Your task to perform on an android device: uninstall "ColorNote Notepad Notes" Image 0: 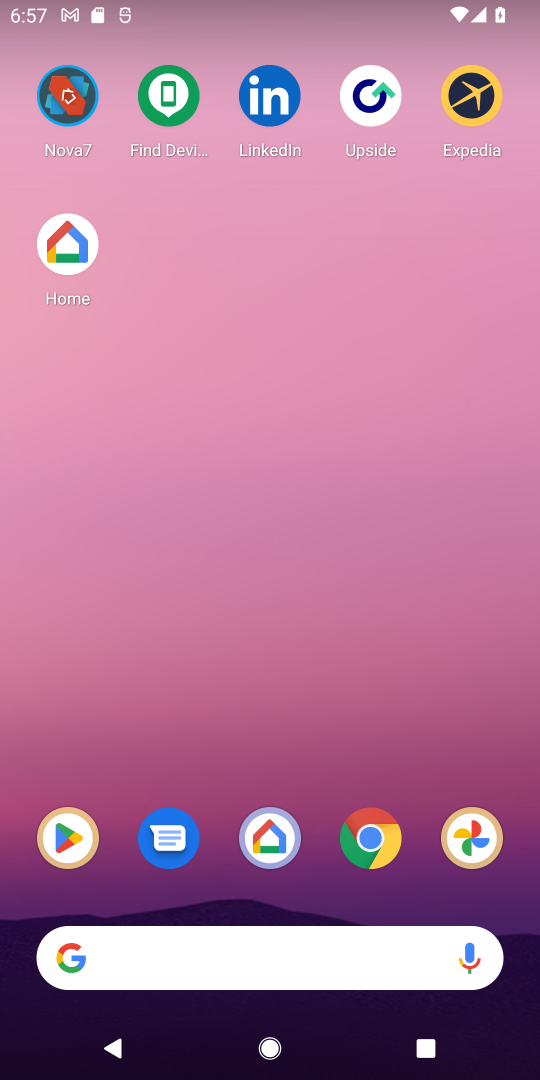
Step 0: click (51, 843)
Your task to perform on an android device: uninstall "ColorNote Notepad Notes" Image 1: 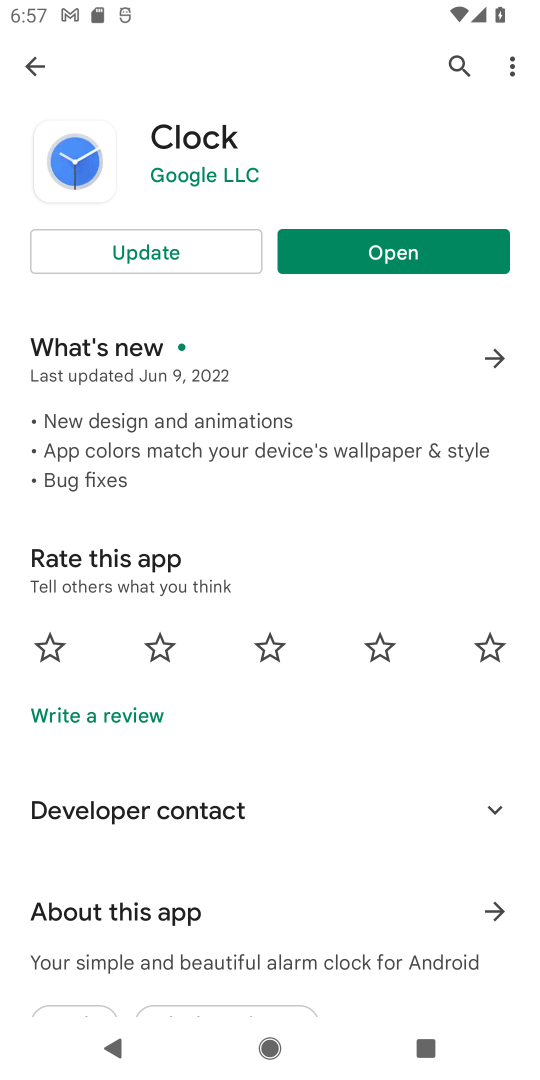
Step 1: click (442, 61)
Your task to perform on an android device: uninstall "ColorNote Notepad Notes" Image 2: 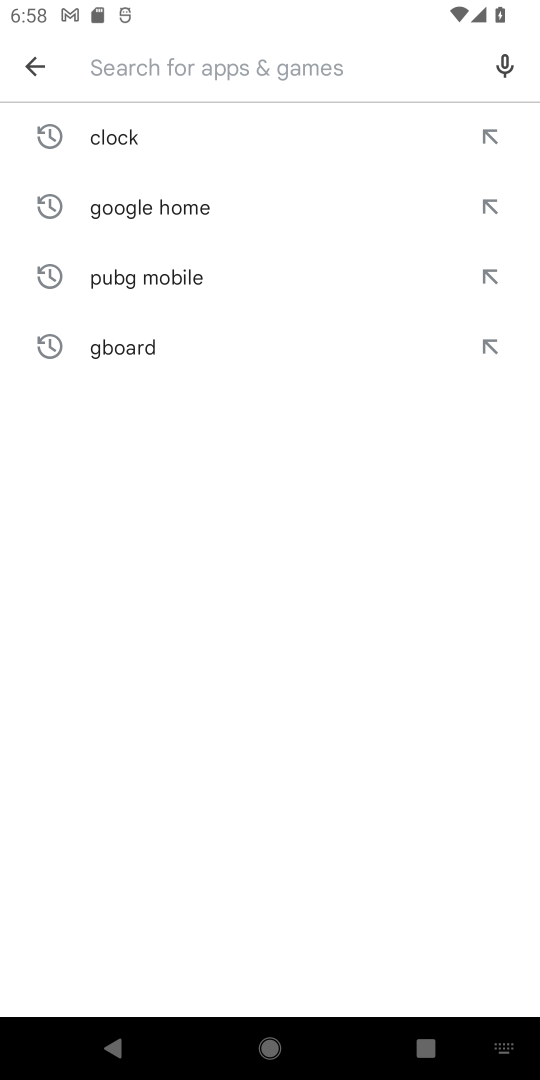
Step 2: type "colornote notepad notes"
Your task to perform on an android device: uninstall "ColorNote Notepad Notes" Image 3: 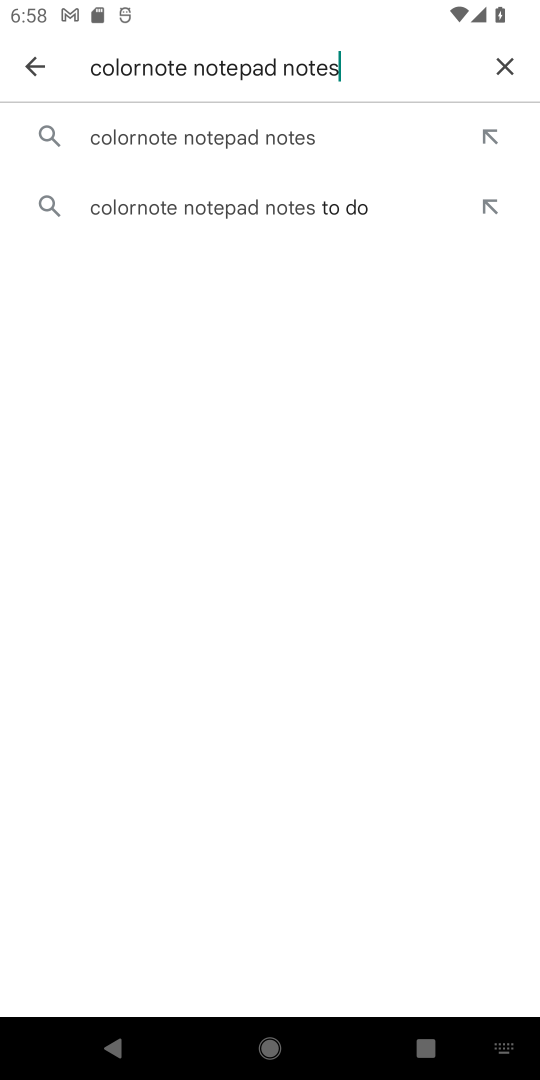
Step 3: click (315, 131)
Your task to perform on an android device: uninstall "ColorNote Notepad Notes" Image 4: 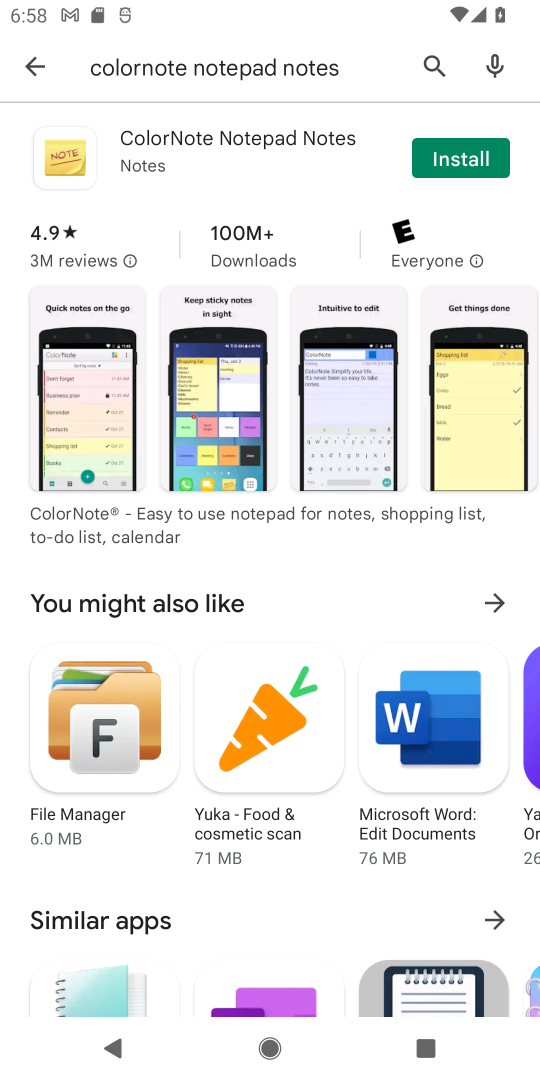
Step 4: click (330, 126)
Your task to perform on an android device: uninstall "ColorNote Notepad Notes" Image 5: 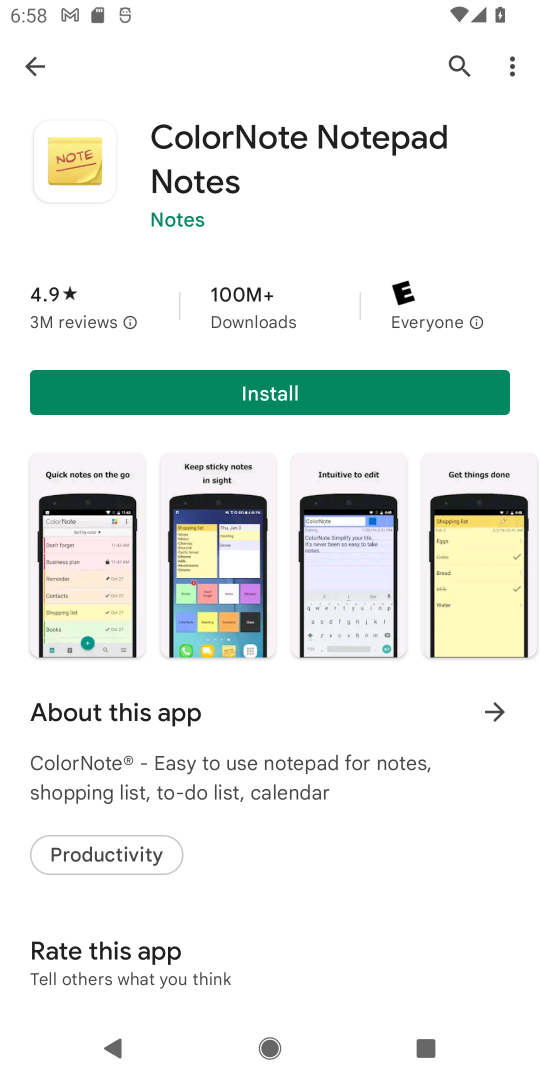
Step 5: task complete